Your task to perform on an android device: Go to Google Image 0: 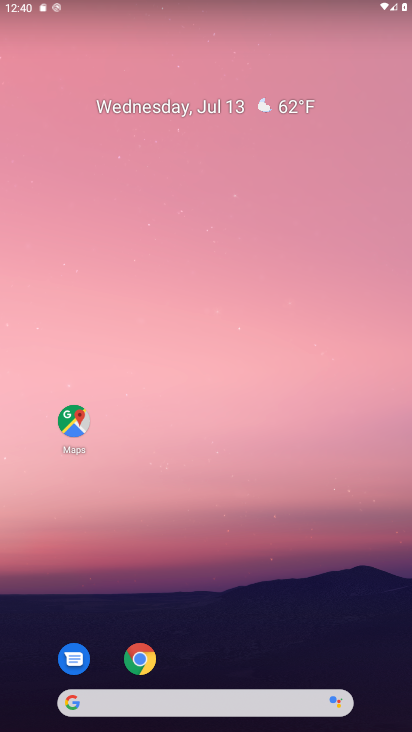
Step 0: click (253, 318)
Your task to perform on an android device: Go to Google Image 1: 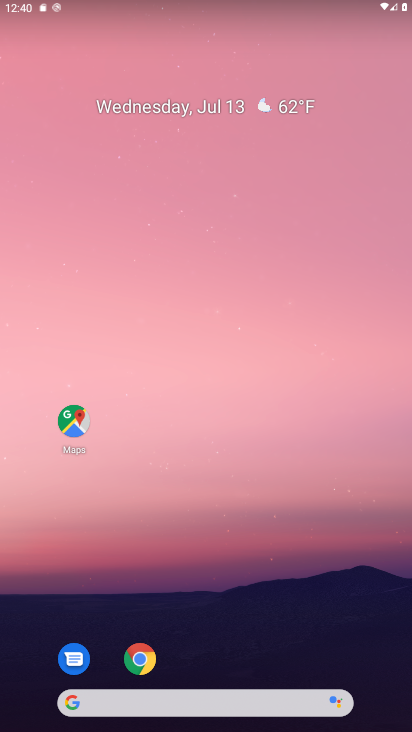
Step 1: click (135, 149)
Your task to perform on an android device: Go to Google Image 2: 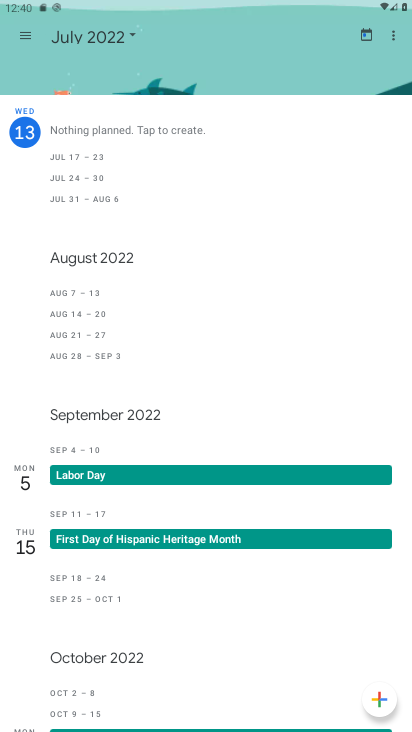
Step 2: press back button
Your task to perform on an android device: Go to Google Image 3: 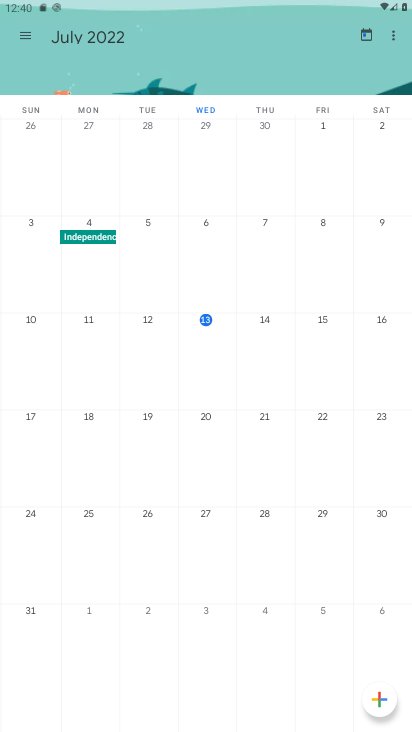
Step 3: press home button
Your task to perform on an android device: Go to Google Image 4: 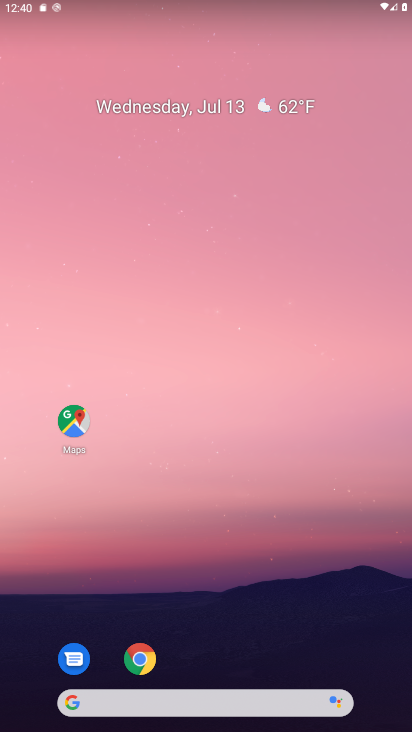
Step 4: drag from (252, 642) to (114, 56)
Your task to perform on an android device: Go to Google Image 5: 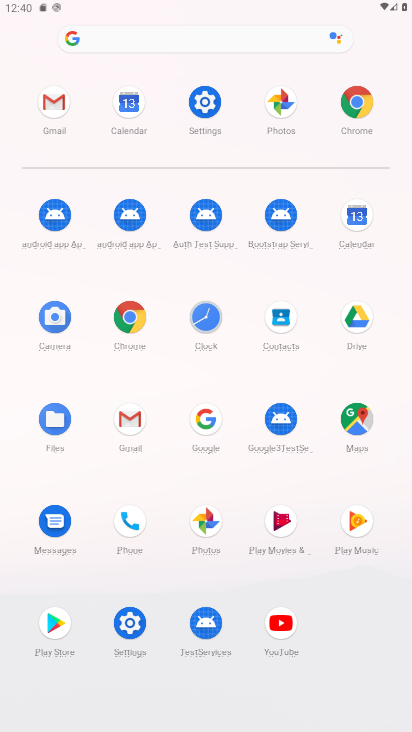
Step 5: click (210, 422)
Your task to perform on an android device: Go to Google Image 6: 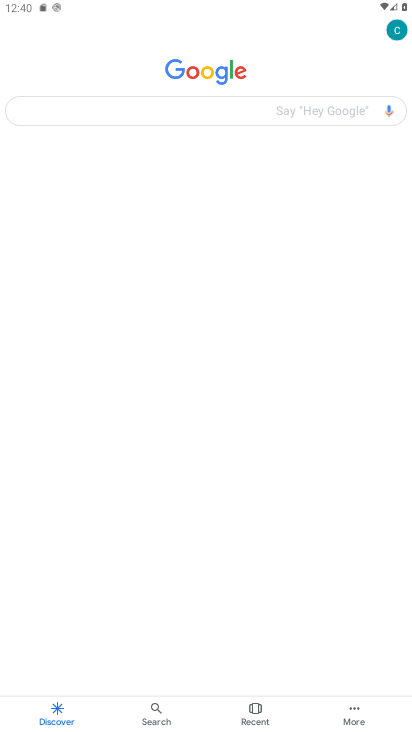
Step 6: click (202, 507)
Your task to perform on an android device: Go to Google Image 7: 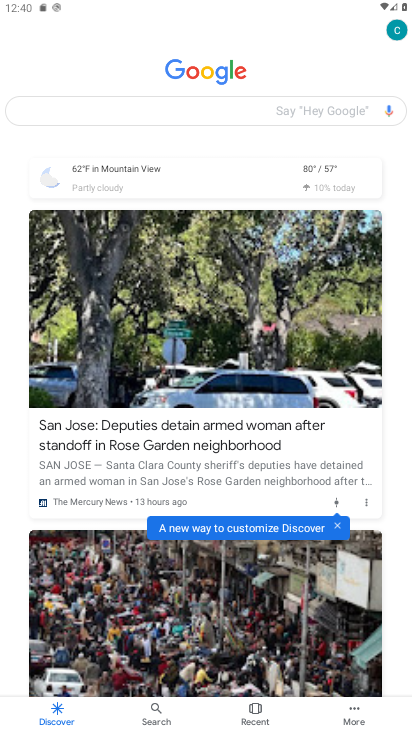
Step 7: task complete